Your task to perform on an android device: toggle sleep mode Image 0: 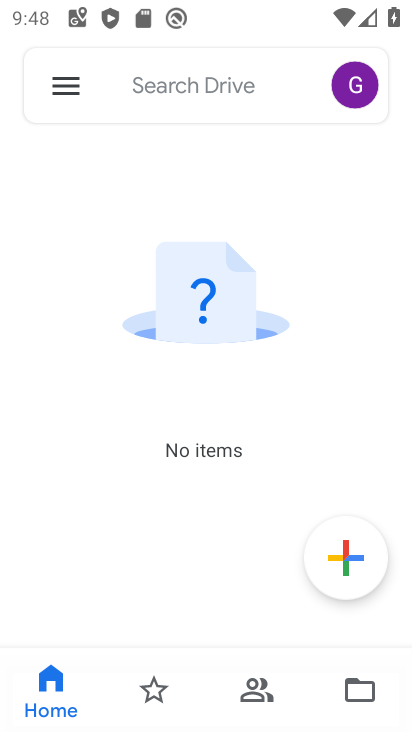
Step 0: click (284, 668)
Your task to perform on an android device: toggle sleep mode Image 1: 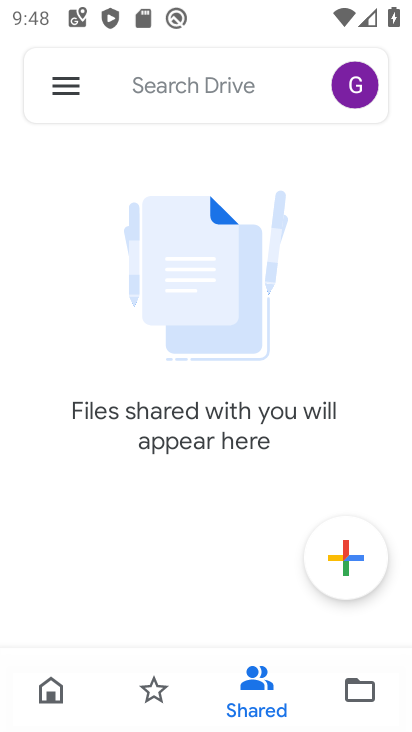
Step 1: press home button
Your task to perform on an android device: toggle sleep mode Image 2: 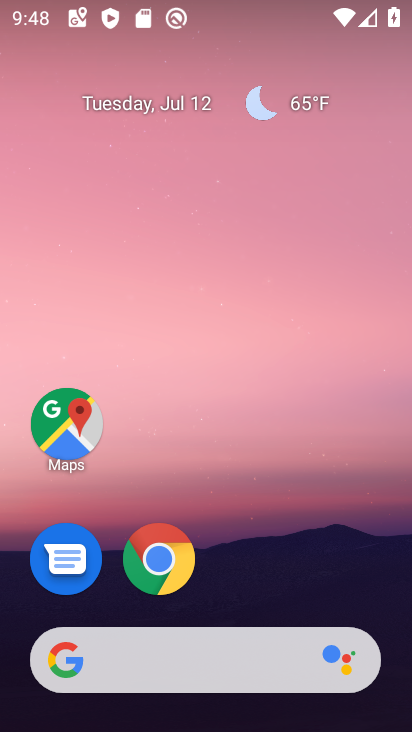
Step 2: drag from (362, 557) to (344, 91)
Your task to perform on an android device: toggle sleep mode Image 3: 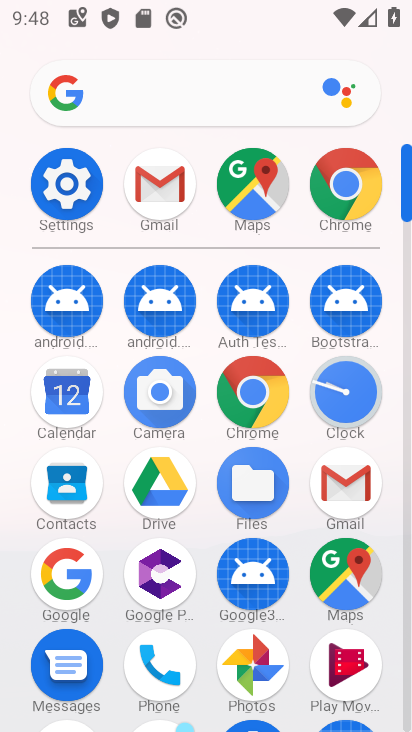
Step 3: click (87, 186)
Your task to perform on an android device: toggle sleep mode Image 4: 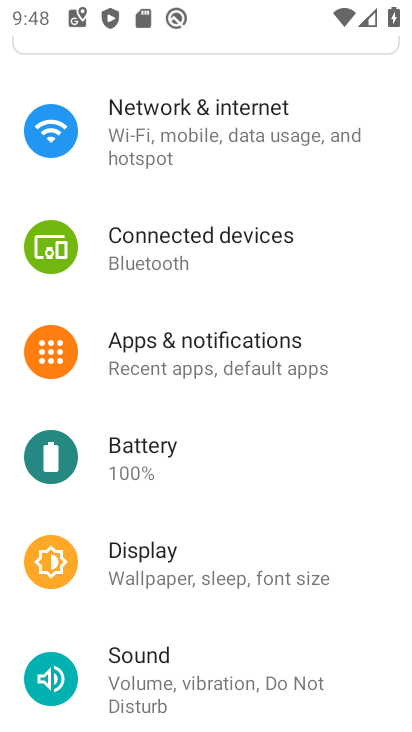
Step 4: drag from (349, 239) to (364, 359)
Your task to perform on an android device: toggle sleep mode Image 5: 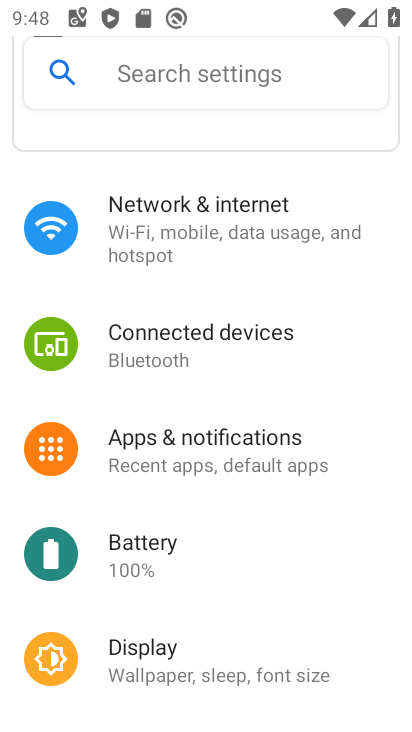
Step 5: drag from (367, 405) to (367, 268)
Your task to perform on an android device: toggle sleep mode Image 6: 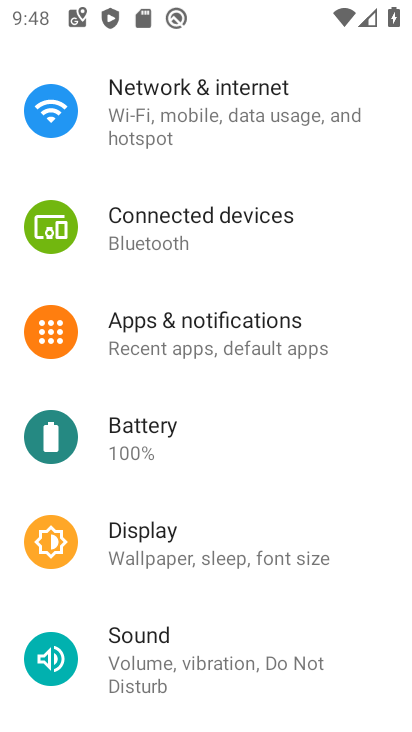
Step 6: drag from (344, 431) to (348, 303)
Your task to perform on an android device: toggle sleep mode Image 7: 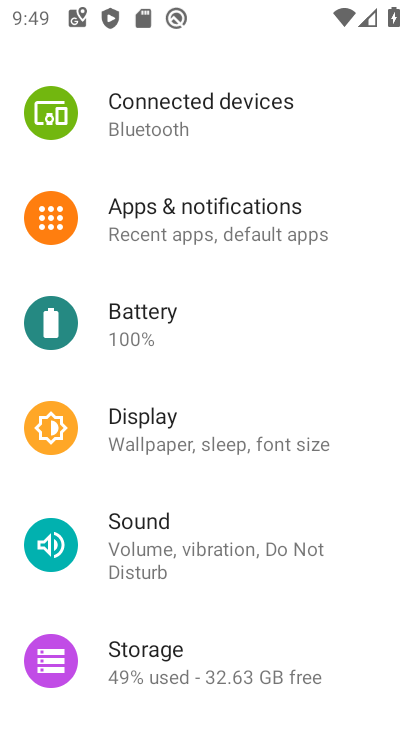
Step 7: click (212, 440)
Your task to perform on an android device: toggle sleep mode Image 8: 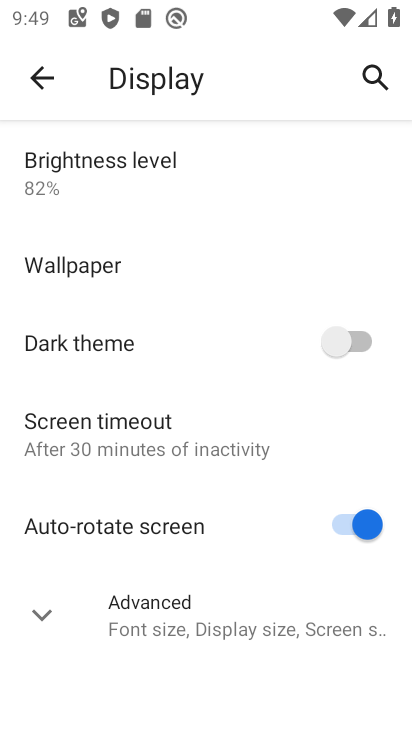
Step 8: click (221, 613)
Your task to perform on an android device: toggle sleep mode Image 9: 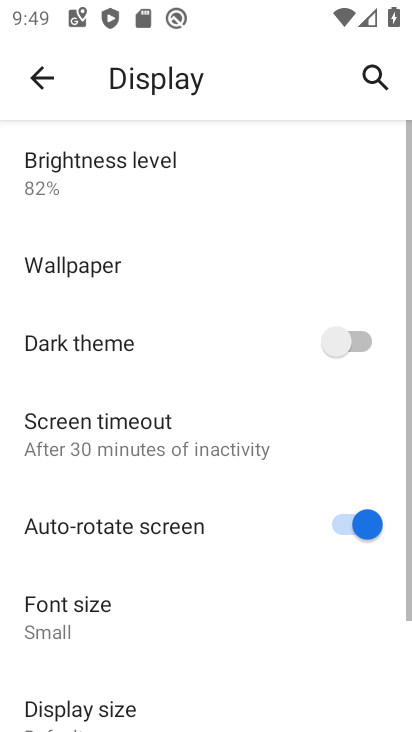
Step 9: task complete